Your task to perform on an android device: open app "Messages" (install if not already installed), go to login, and select forgot password Image 0: 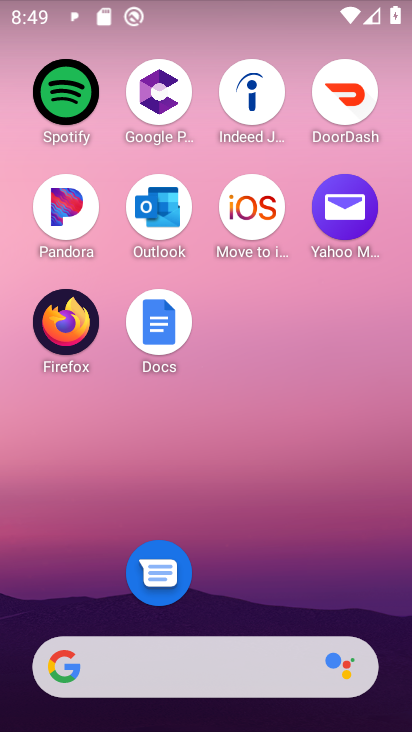
Step 0: drag from (241, 597) to (283, 23)
Your task to perform on an android device: open app "Messages" (install if not already installed), go to login, and select forgot password Image 1: 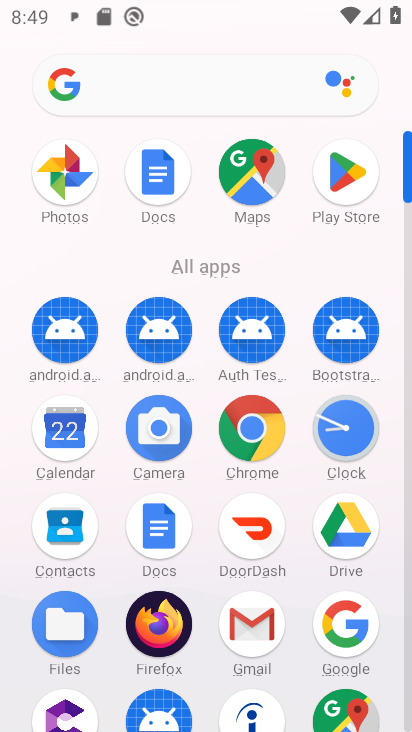
Step 1: click (359, 183)
Your task to perform on an android device: open app "Messages" (install if not already installed), go to login, and select forgot password Image 2: 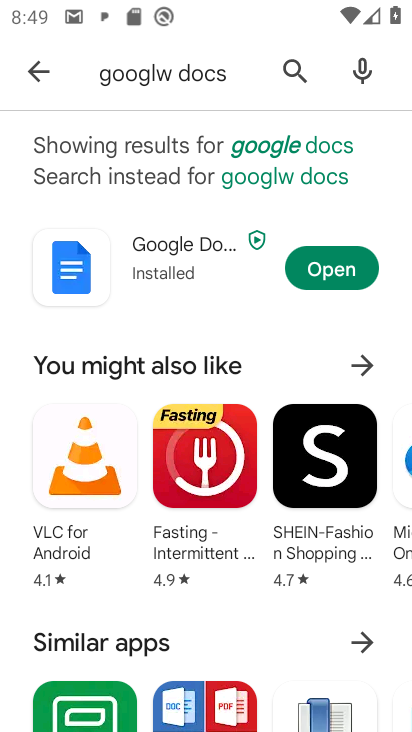
Step 2: click (139, 78)
Your task to perform on an android device: open app "Messages" (install if not already installed), go to login, and select forgot password Image 3: 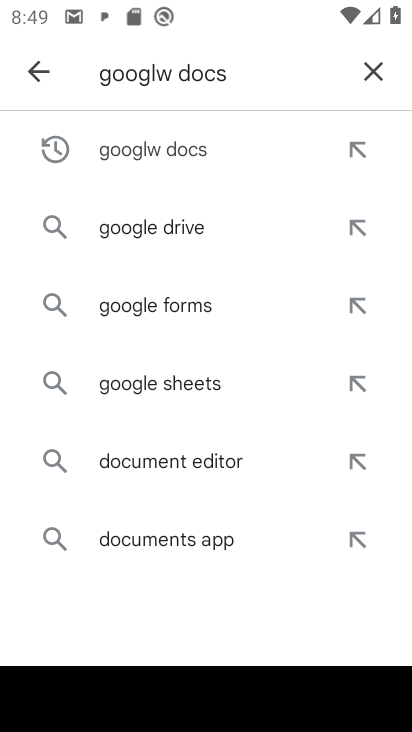
Step 3: click (372, 64)
Your task to perform on an android device: open app "Messages" (install if not already installed), go to login, and select forgot password Image 4: 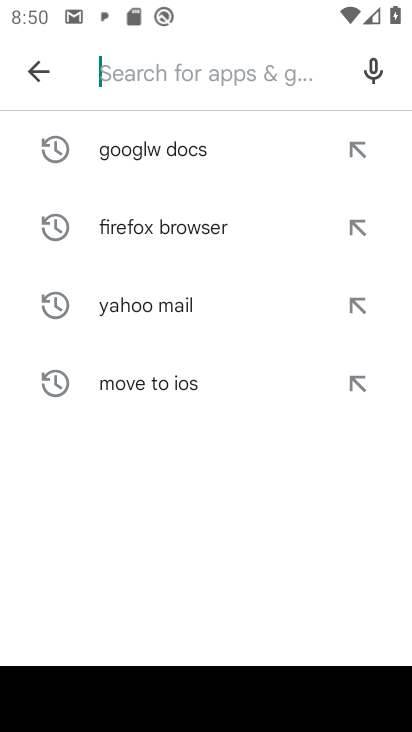
Step 4: type "Messages"
Your task to perform on an android device: open app "Messages" (install if not already installed), go to login, and select forgot password Image 5: 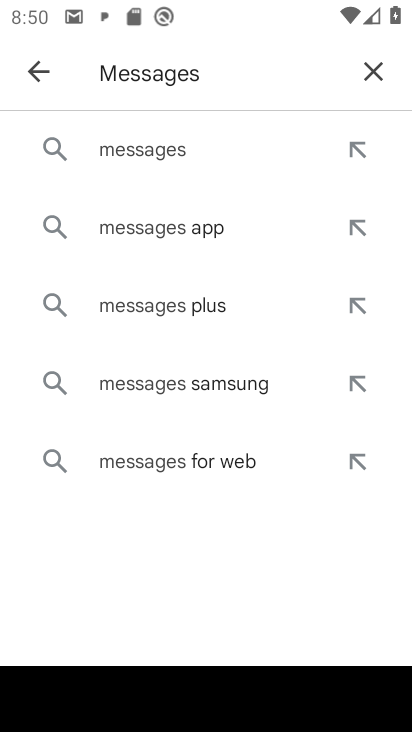
Step 5: click (153, 157)
Your task to perform on an android device: open app "Messages" (install if not already installed), go to login, and select forgot password Image 6: 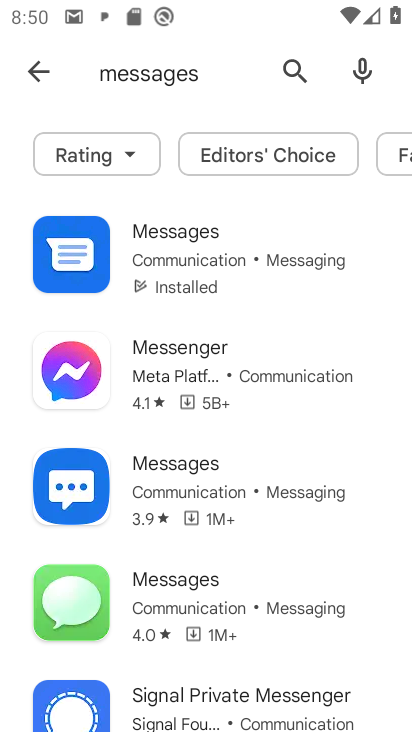
Step 6: click (196, 476)
Your task to perform on an android device: open app "Messages" (install if not already installed), go to login, and select forgot password Image 7: 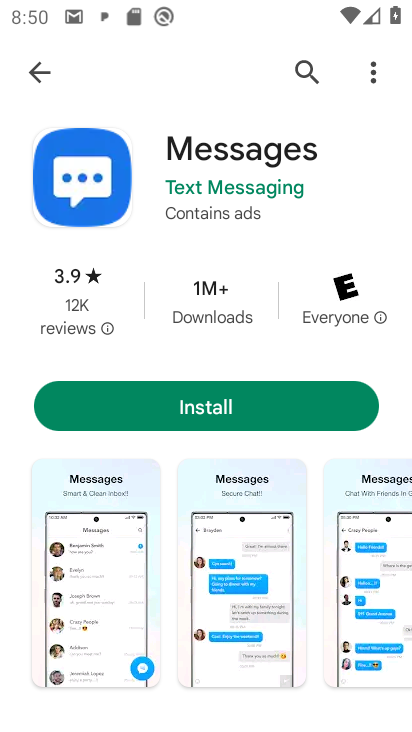
Step 7: click (41, 66)
Your task to perform on an android device: open app "Messages" (install if not already installed), go to login, and select forgot password Image 8: 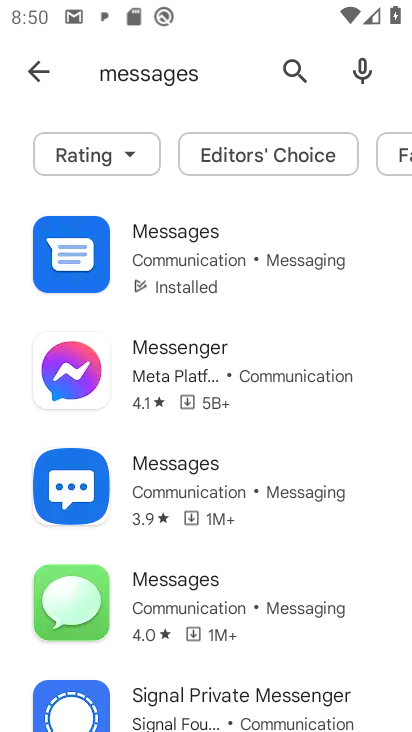
Step 8: click (175, 245)
Your task to perform on an android device: open app "Messages" (install if not already installed), go to login, and select forgot password Image 9: 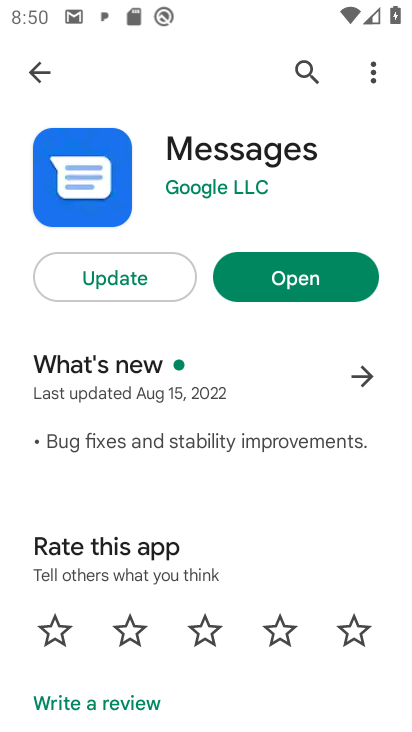
Step 9: click (299, 280)
Your task to perform on an android device: open app "Messages" (install if not already installed), go to login, and select forgot password Image 10: 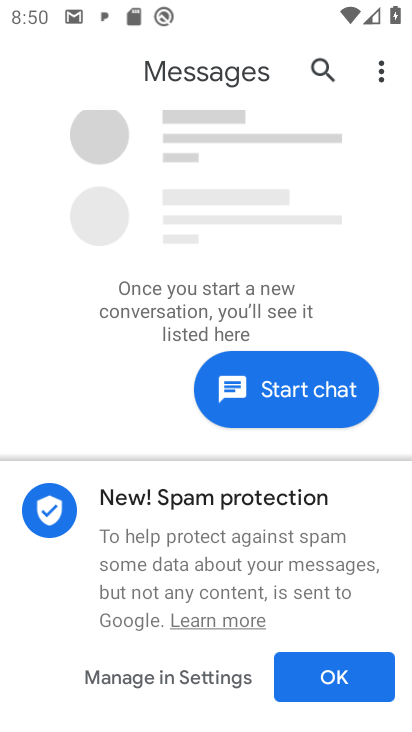
Step 10: click (323, 665)
Your task to perform on an android device: open app "Messages" (install if not already installed), go to login, and select forgot password Image 11: 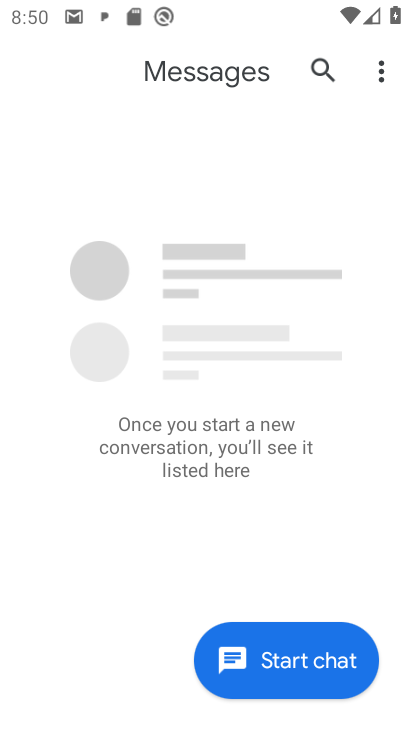
Step 11: task complete